Your task to perform on an android device: open app "Mercado Libre" Image 0: 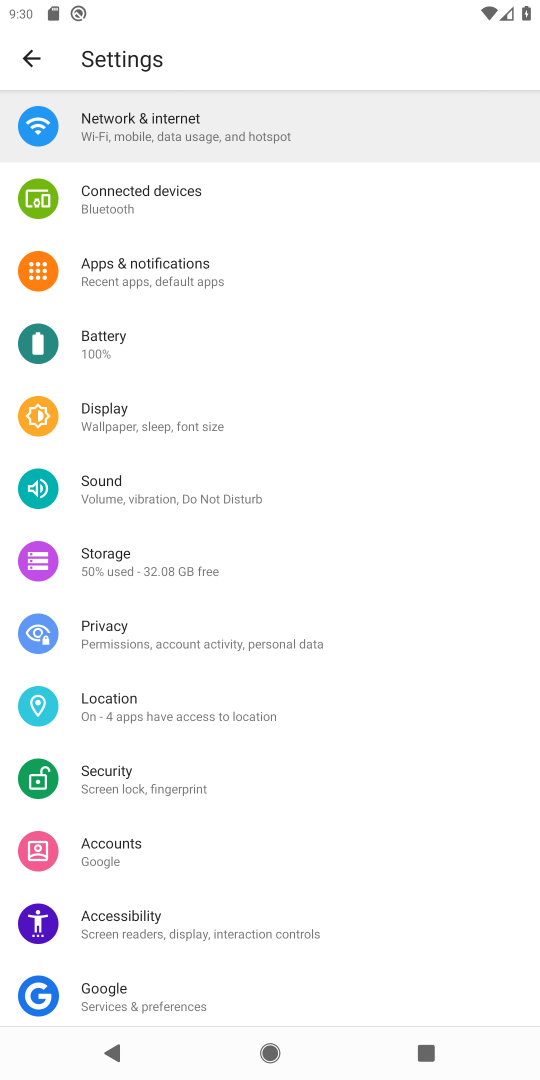
Step 0: press home button
Your task to perform on an android device: open app "Mercado Libre" Image 1: 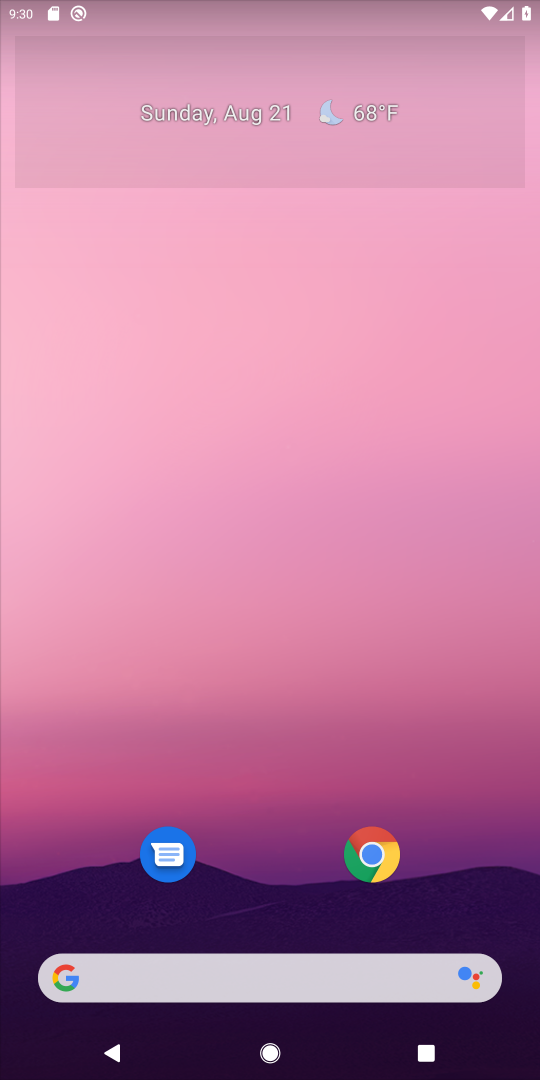
Step 1: drag from (243, 909) to (347, 263)
Your task to perform on an android device: open app "Mercado Libre" Image 2: 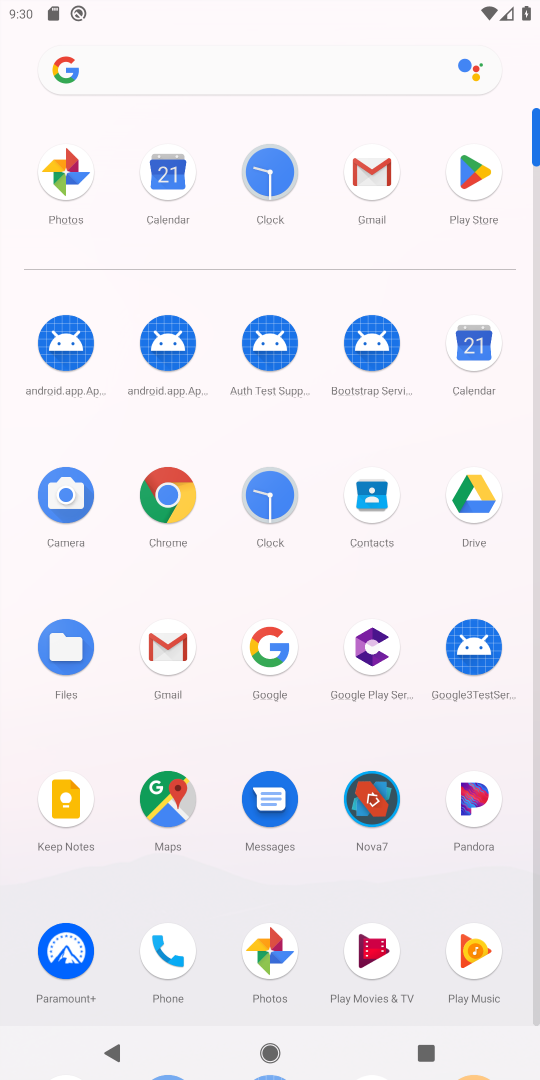
Step 2: click (457, 175)
Your task to perform on an android device: open app "Mercado Libre" Image 3: 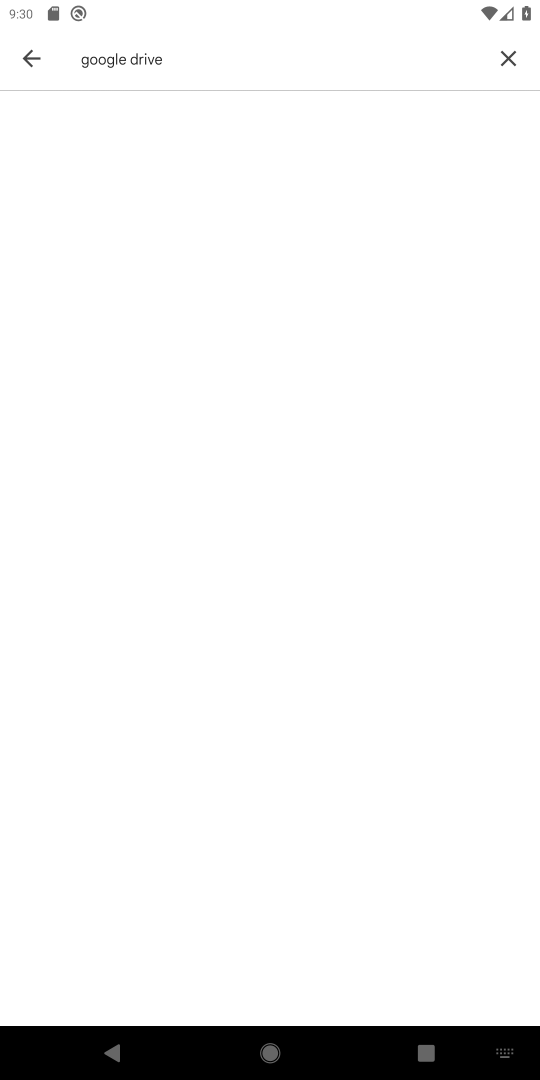
Step 3: click (520, 36)
Your task to perform on an android device: open app "Mercado Libre" Image 4: 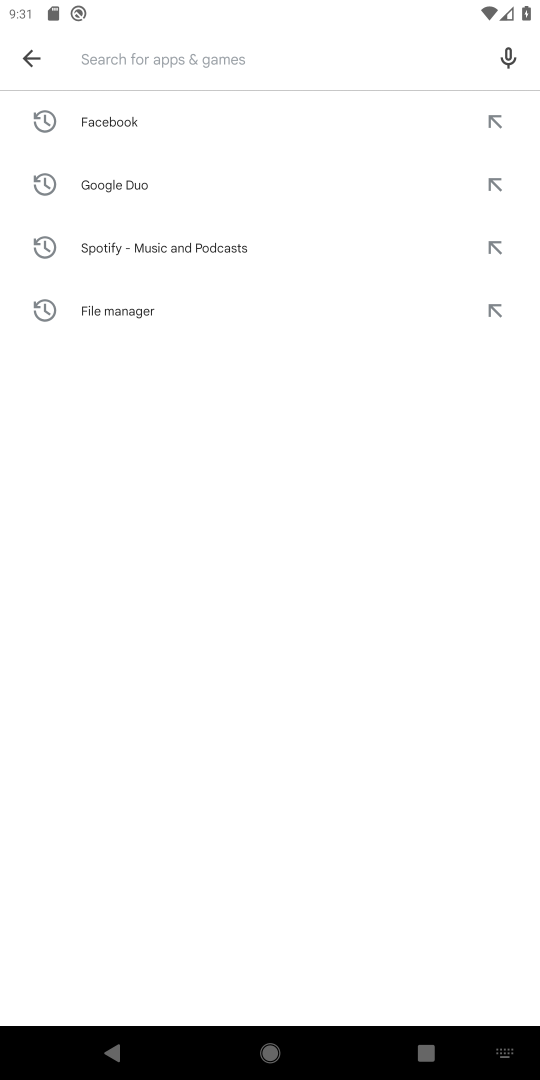
Step 4: type "merco liber"
Your task to perform on an android device: open app "Mercado Libre" Image 5: 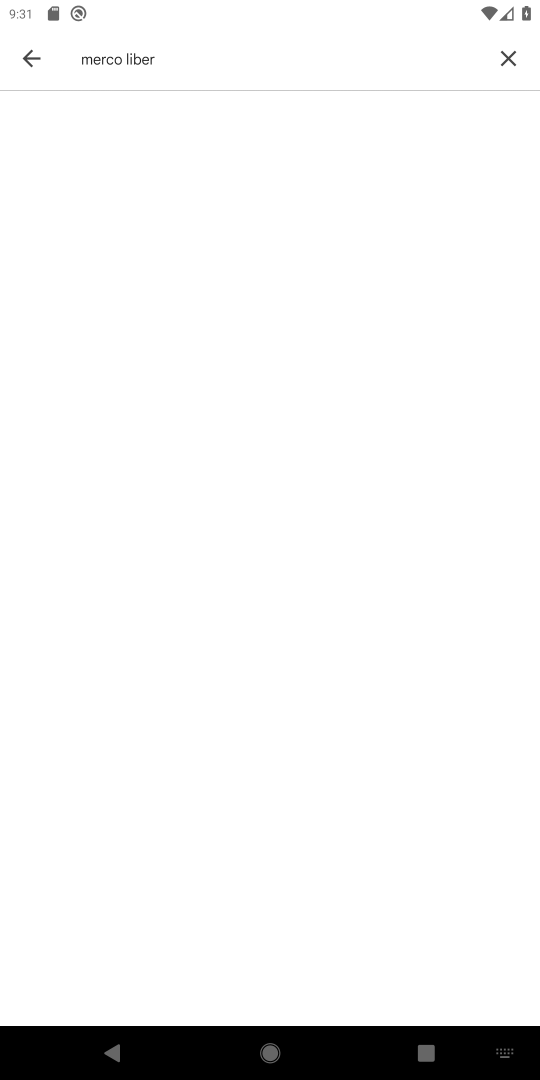
Step 5: task complete